Your task to perform on an android device: Go to sound settings Image 0: 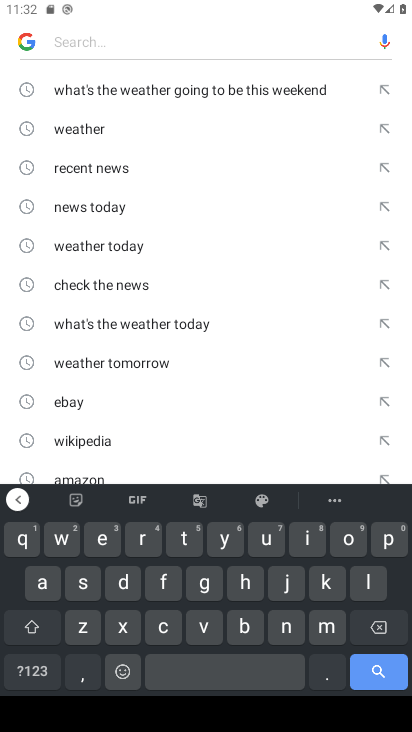
Step 0: press home button
Your task to perform on an android device: Go to sound settings Image 1: 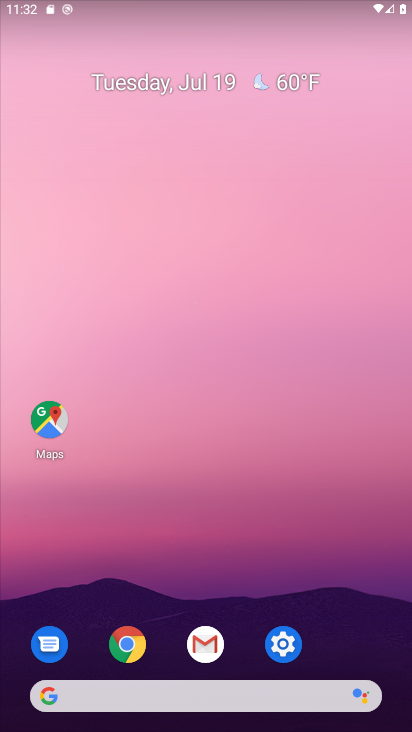
Step 1: click (274, 643)
Your task to perform on an android device: Go to sound settings Image 2: 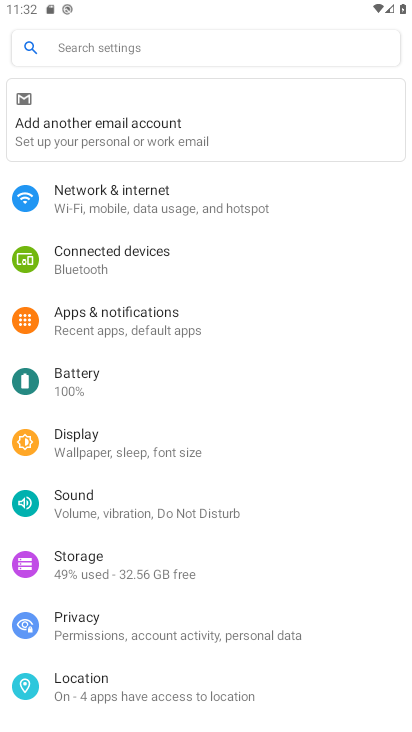
Step 2: click (83, 503)
Your task to perform on an android device: Go to sound settings Image 3: 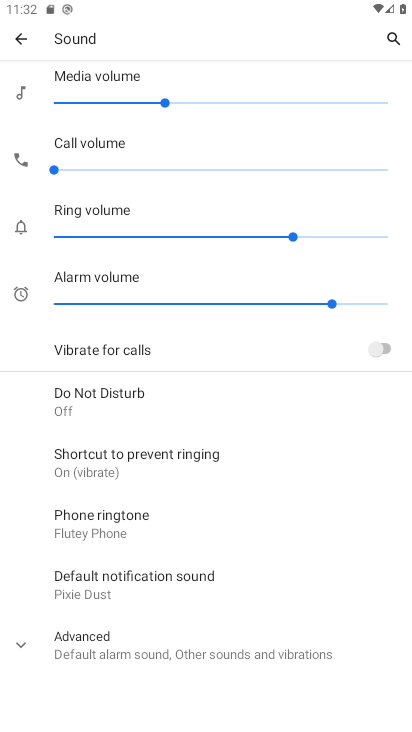
Step 3: task complete